Your task to perform on an android device: open chrome and create a bookmark for the current page Image 0: 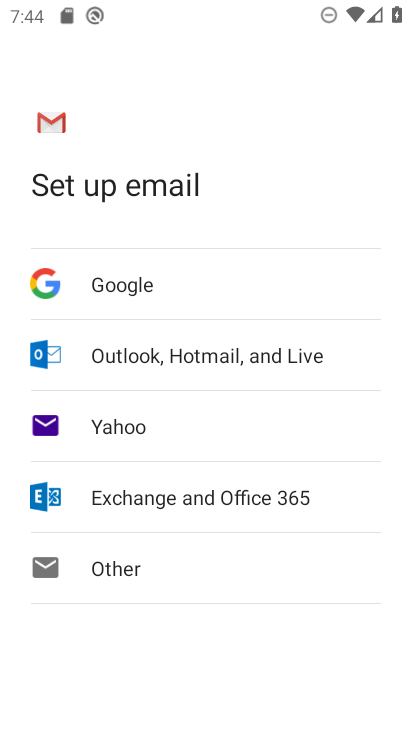
Step 0: press home button
Your task to perform on an android device: open chrome and create a bookmark for the current page Image 1: 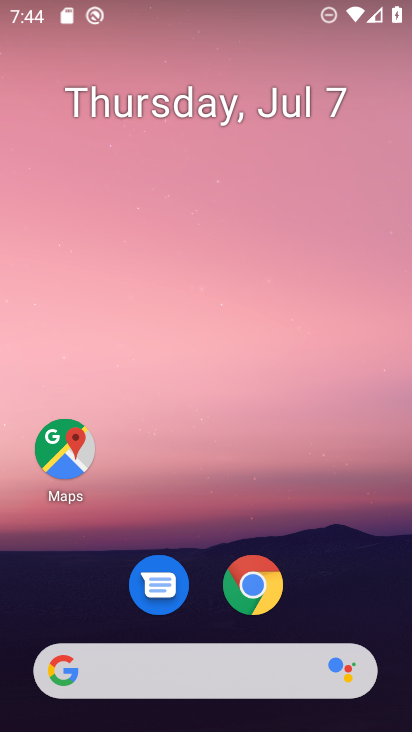
Step 1: click (250, 591)
Your task to perform on an android device: open chrome and create a bookmark for the current page Image 2: 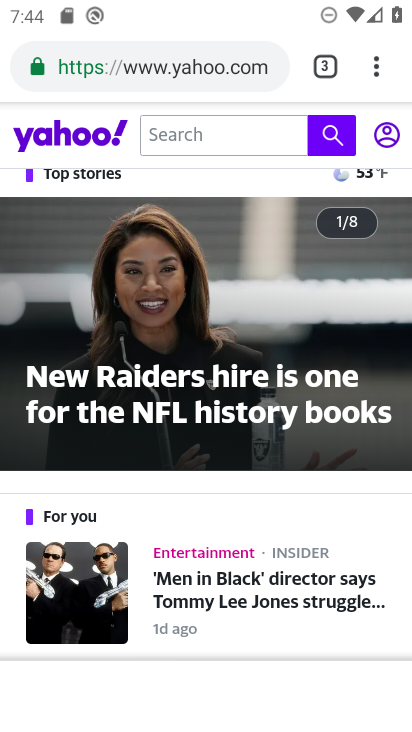
Step 2: click (374, 84)
Your task to perform on an android device: open chrome and create a bookmark for the current page Image 3: 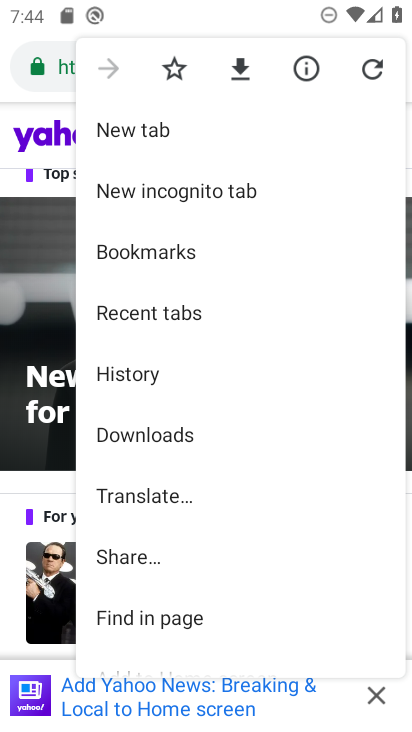
Step 3: click (174, 71)
Your task to perform on an android device: open chrome and create a bookmark for the current page Image 4: 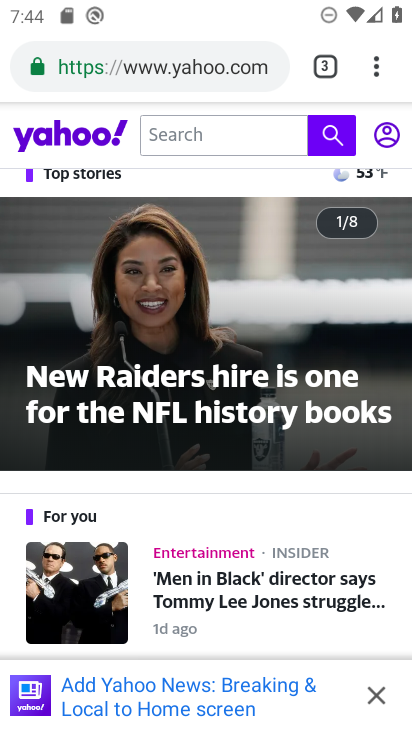
Step 4: task complete